Your task to perform on an android device: Open the map Image 0: 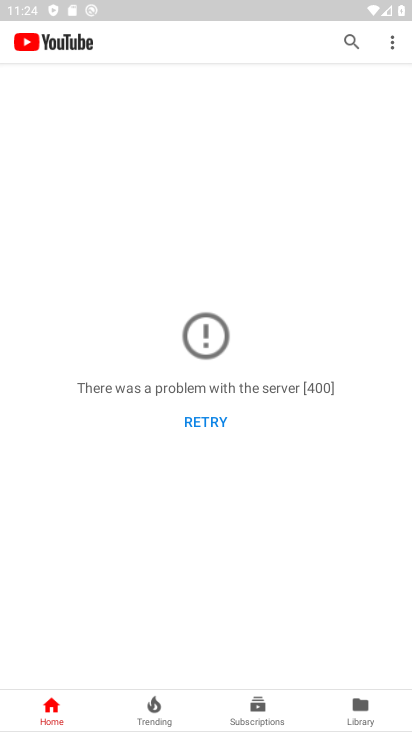
Step 0: press home button
Your task to perform on an android device: Open the map Image 1: 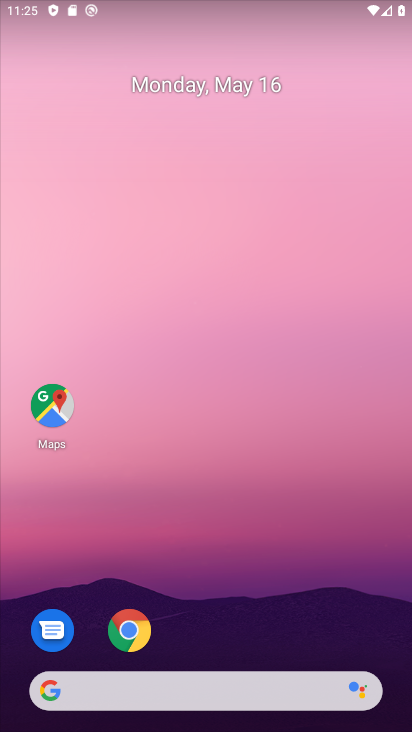
Step 1: click (47, 410)
Your task to perform on an android device: Open the map Image 2: 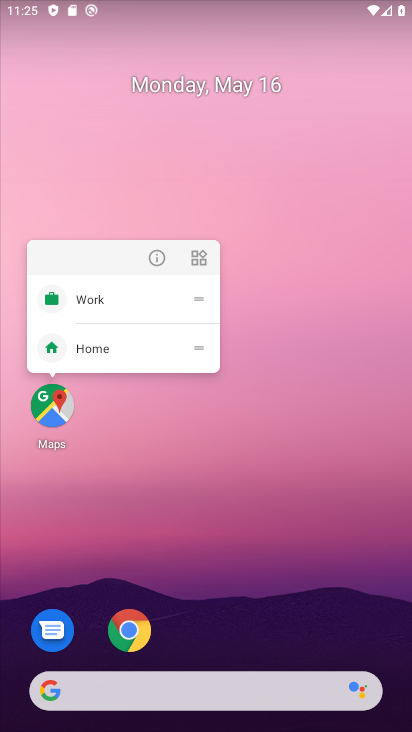
Step 2: click (46, 402)
Your task to perform on an android device: Open the map Image 3: 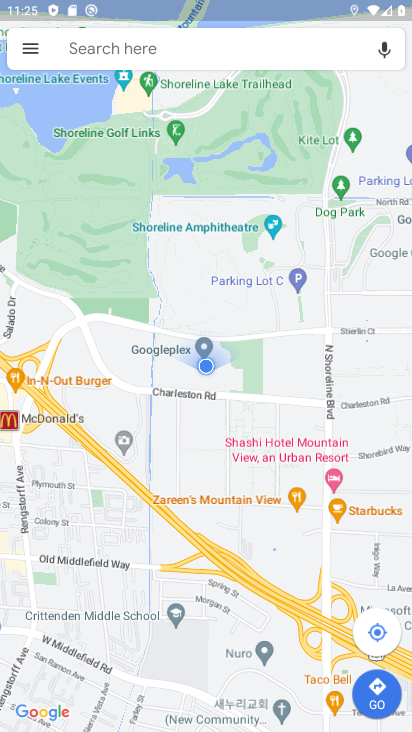
Step 3: task complete